Your task to perform on an android device: What is the news today? Image 0: 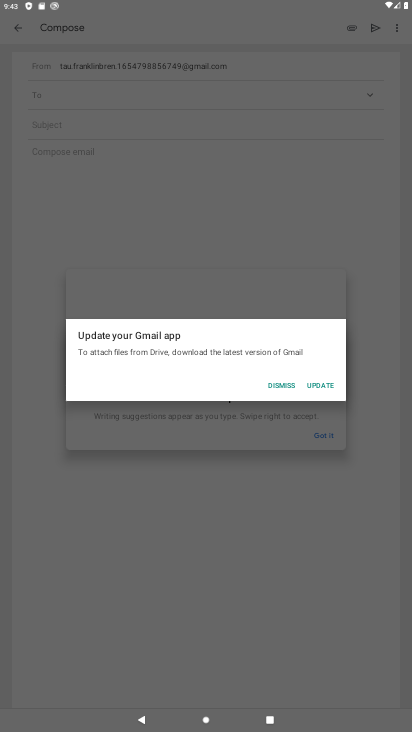
Step 0: press home button
Your task to perform on an android device: What is the news today? Image 1: 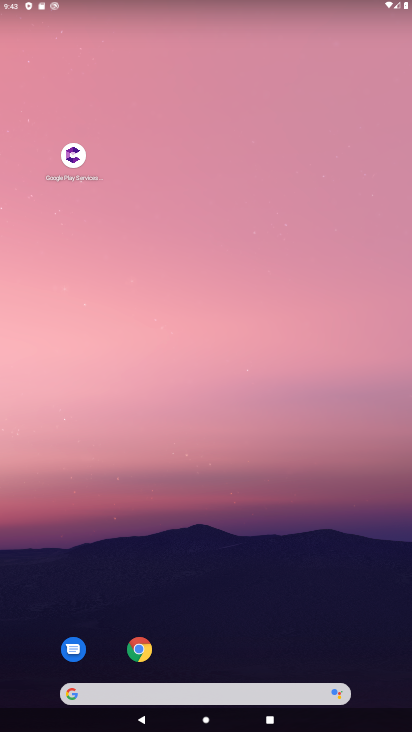
Step 1: press home button
Your task to perform on an android device: What is the news today? Image 2: 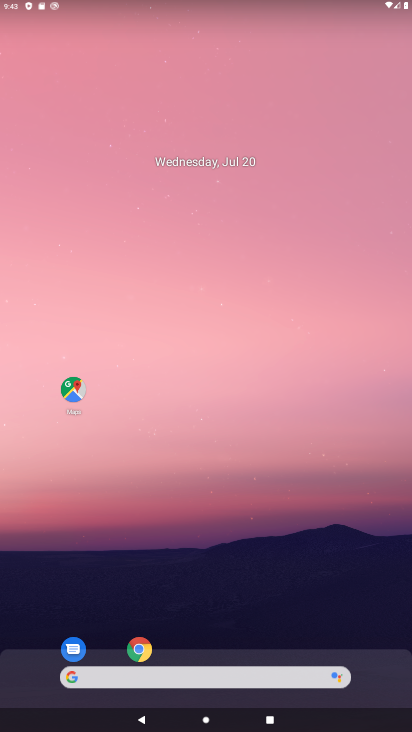
Step 2: drag from (374, 581) to (284, 172)
Your task to perform on an android device: What is the news today? Image 3: 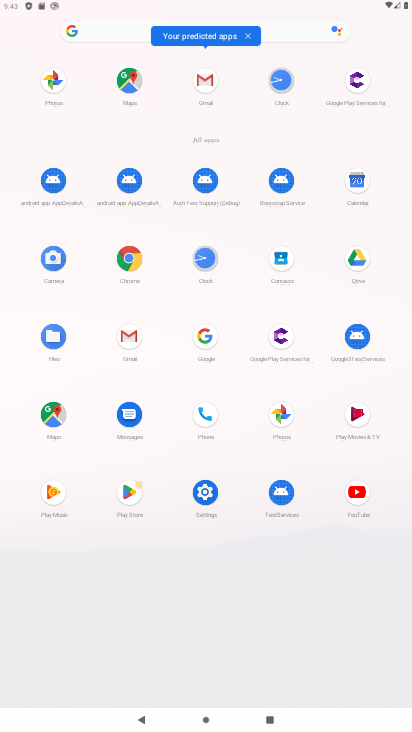
Step 3: click (210, 345)
Your task to perform on an android device: What is the news today? Image 4: 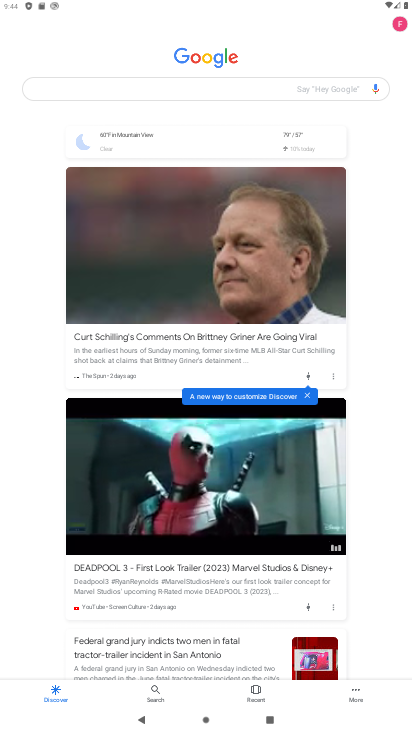
Step 4: task complete